Your task to perform on an android device: Open Google Maps Image 0: 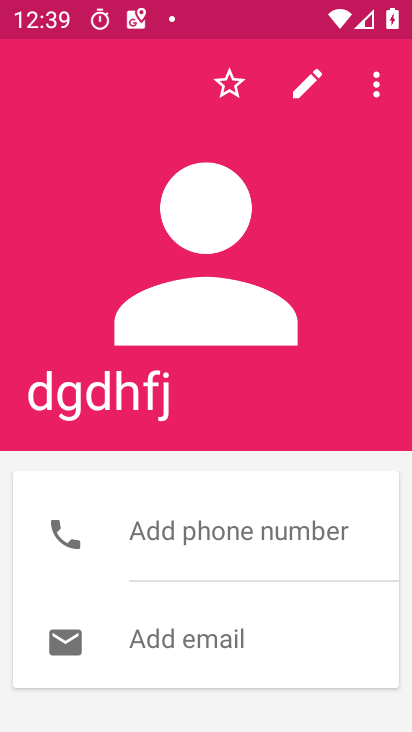
Step 0: press home button
Your task to perform on an android device: Open Google Maps Image 1: 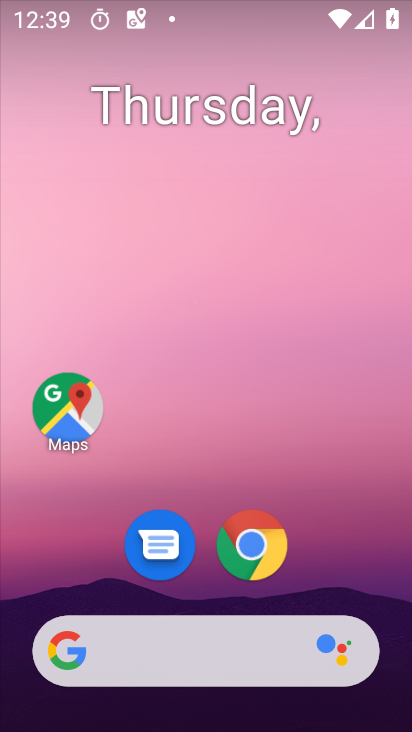
Step 1: drag from (268, 481) to (276, 164)
Your task to perform on an android device: Open Google Maps Image 2: 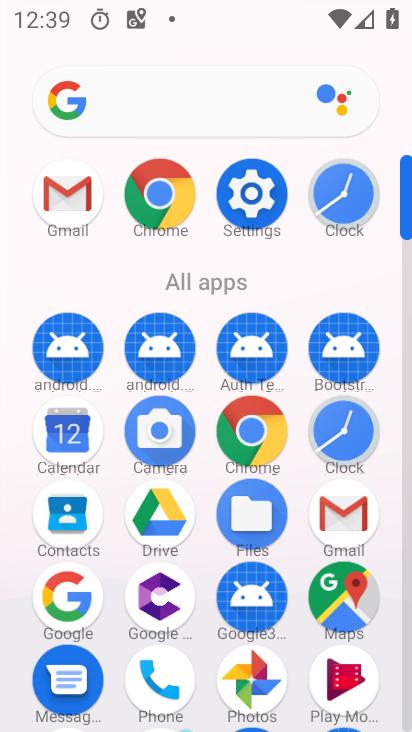
Step 2: click (336, 607)
Your task to perform on an android device: Open Google Maps Image 3: 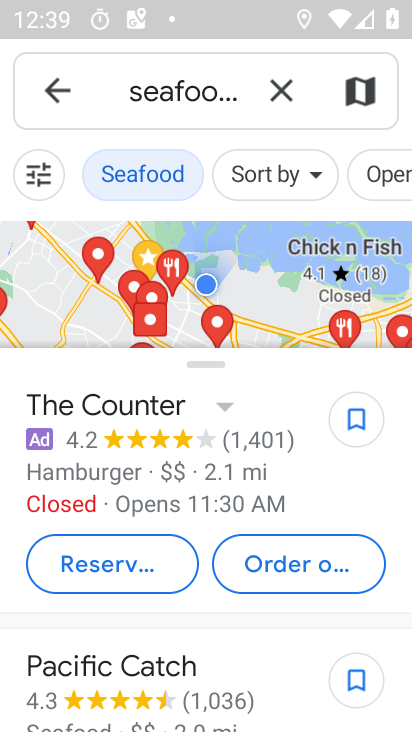
Step 3: task complete